Your task to perform on an android device: change your default location settings in chrome Image 0: 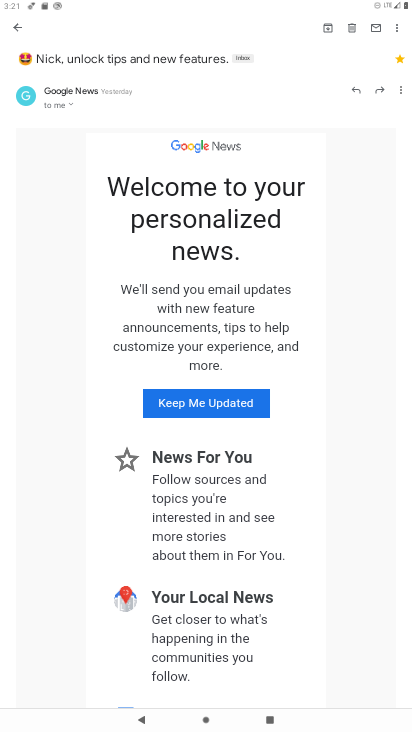
Step 0: press home button
Your task to perform on an android device: change your default location settings in chrome Image 1: 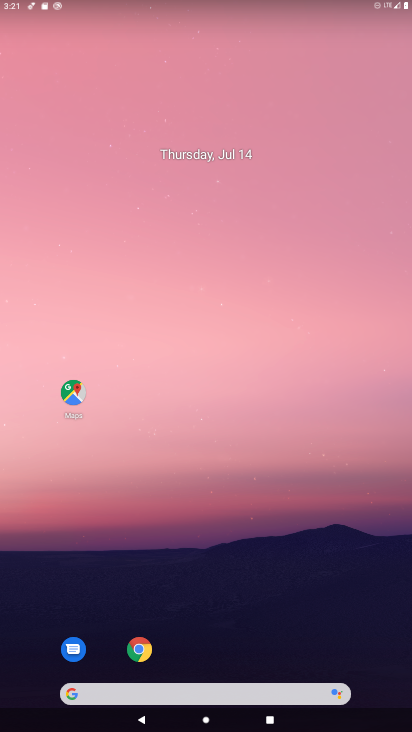
Step 1: drag from (254, 611) to (223, 300)
Your task to perform on an android device: change your default location settings in chrome Image 2: 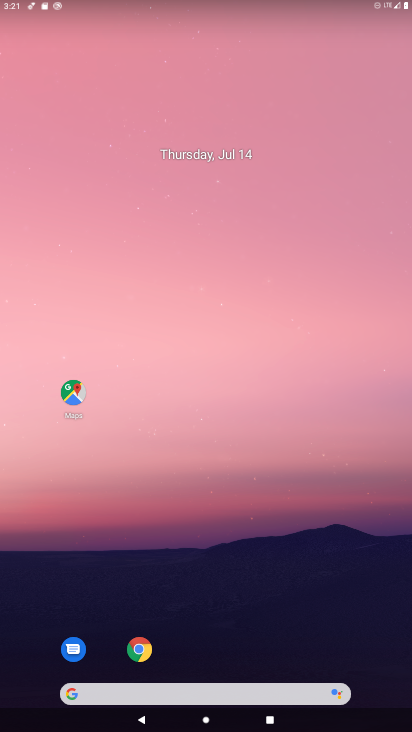
Step 2: drag from (213, 655) to (226, 142)
Your task to perform on an android device: change your default location settings in chrome Image 3: 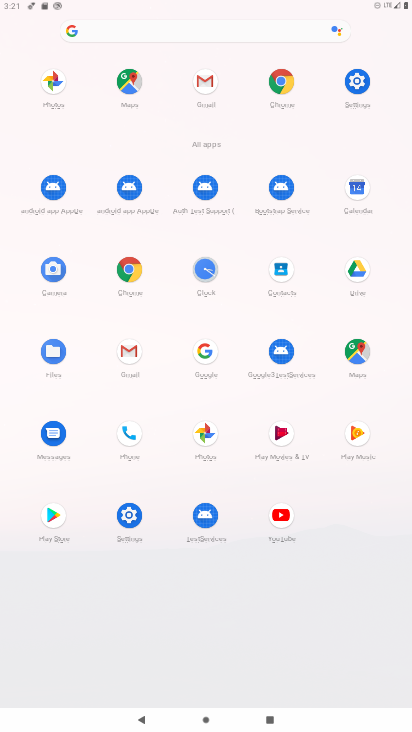
Step 3: click (269, 80)
Your task to perform on an android device: change your default location settings in chrome Image 4: 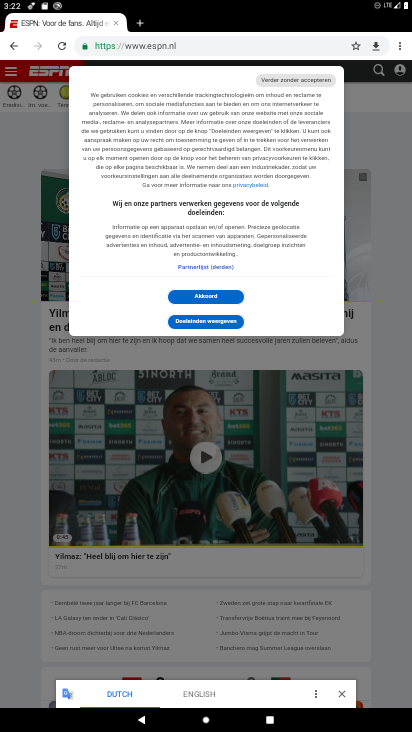
Step 4: click (399, 41)
Your task to perform on an android device: change your default location settings in chrome Image 5: 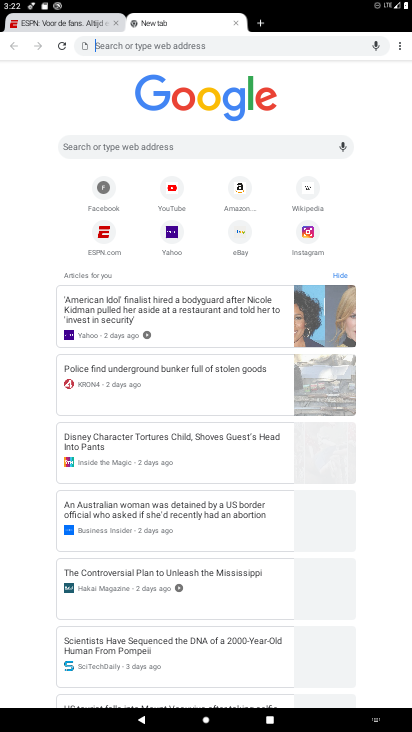
Step 5: click (397, 50)
Your task to perform on an android device: change your default location settings in chrome Image 6: 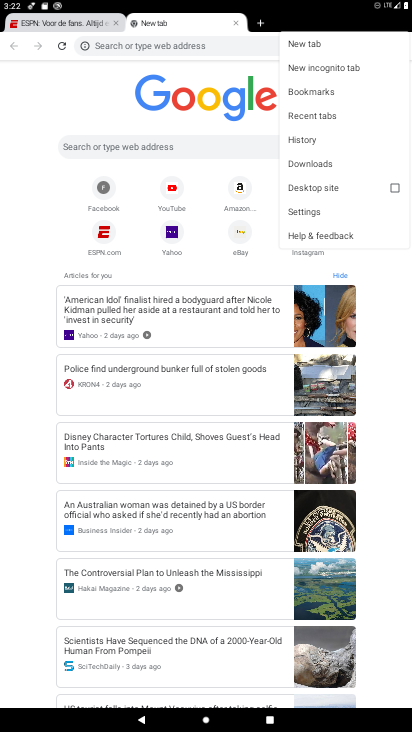
Step 6: click (311, 207)
Your task to perform on an android device: change your default location settings in chrome Image 7: 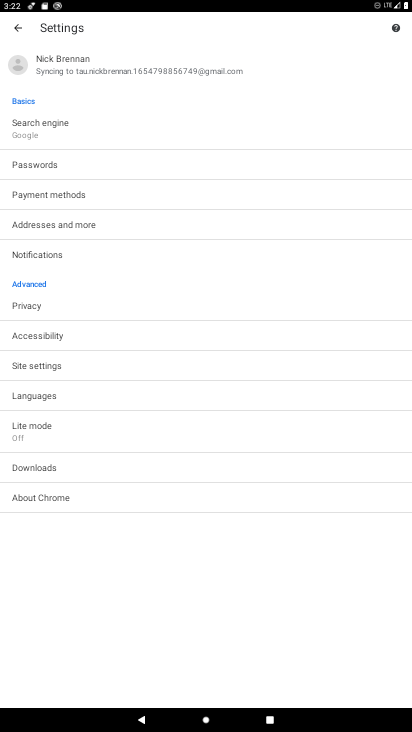
Step 7: click (57, 367)
Your task to perform on an android device: change your default location settings in chrome Image 8: 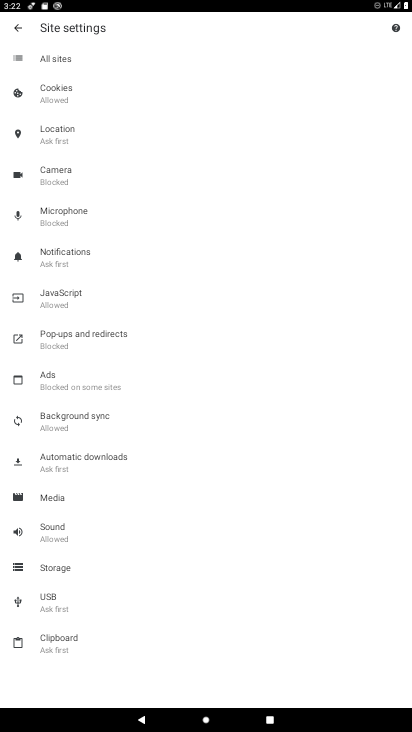
Step 8: click (68, 126)
Your task to perform on an android device: change your default location settings in chrome Image 9: 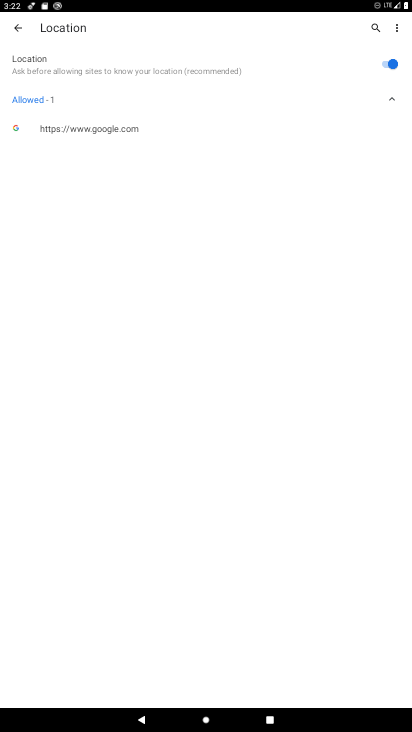
Step 9: task complete